Your task to perform on an android device: Search for pizza restaurants on Maps Image 0: 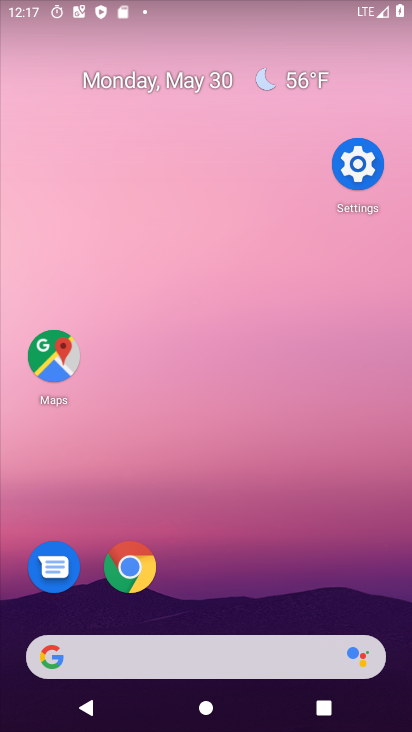
Step 0: drag from (283, 575) to (189, 135)
Your task to perform on an android device: Search for pizza restaurants on Maps Image 1: 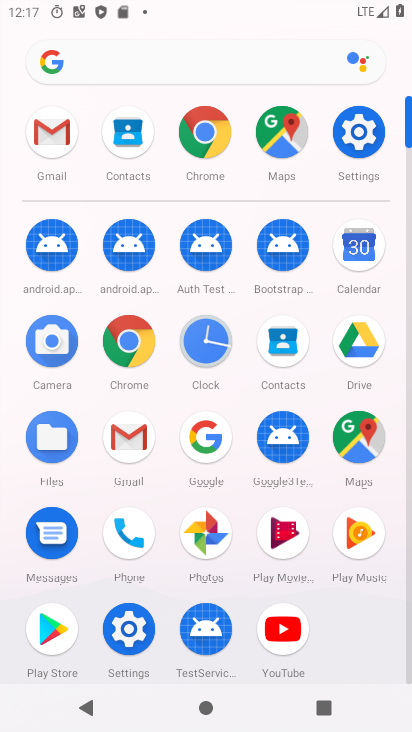
Step 1: click (376, 438)
Your task to perform on an android device: Search for pizza restaurants on Maps Image 2: 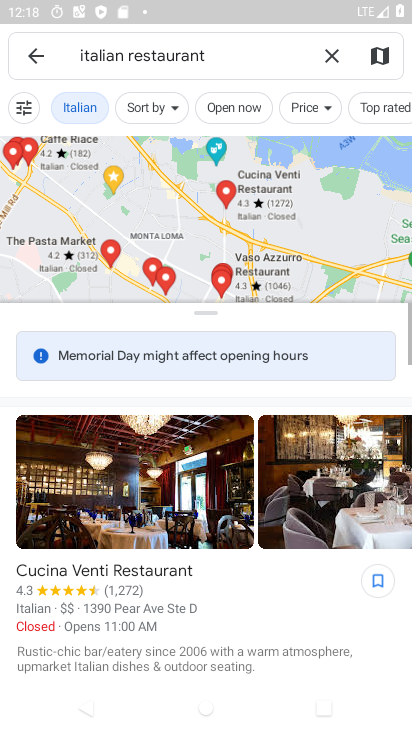
Step 2: click (334, 74)
Your task to perform on an android device: Search for pizza restaurants on Maps Image 3: 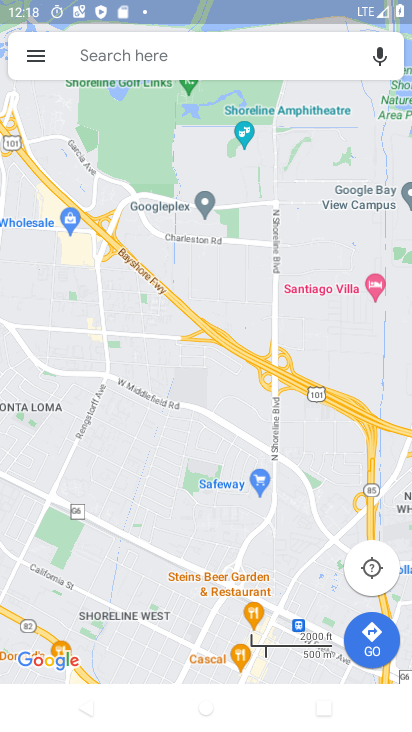
Step 3: click (142, 47)
Your task to perform on an android device: Search for pizza restaurants on Maps Image 4: 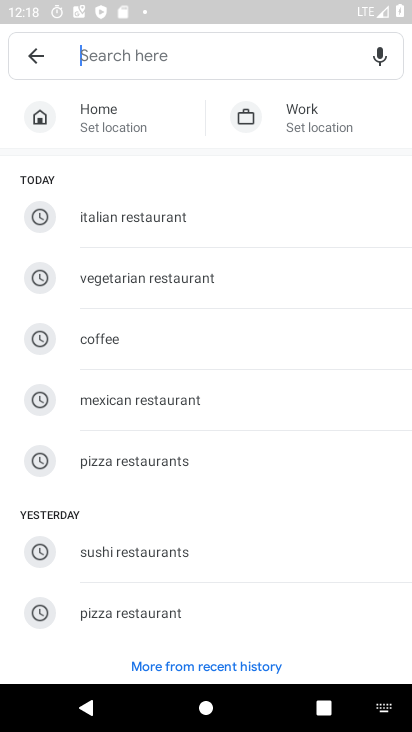
Step 4: type "pizza restaurants "
Your task to perform on an android device: Search for pizza restaurants on Maps Image 5: 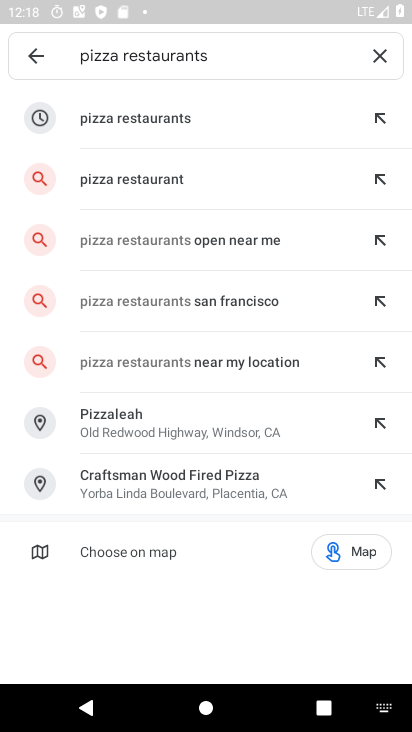
Step 5: click (193, 112)
Your task to perform on an android device: Search for pizza restaurants on Maps Image 6: 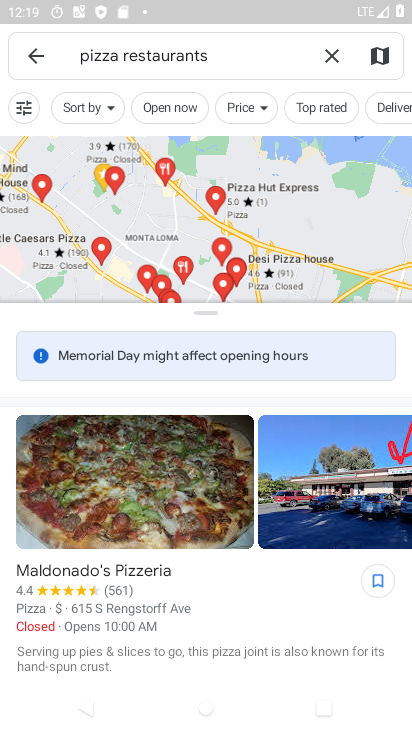
Step 6: task complete